Your task to perform on an android device: change alarm snooze length Image 0: 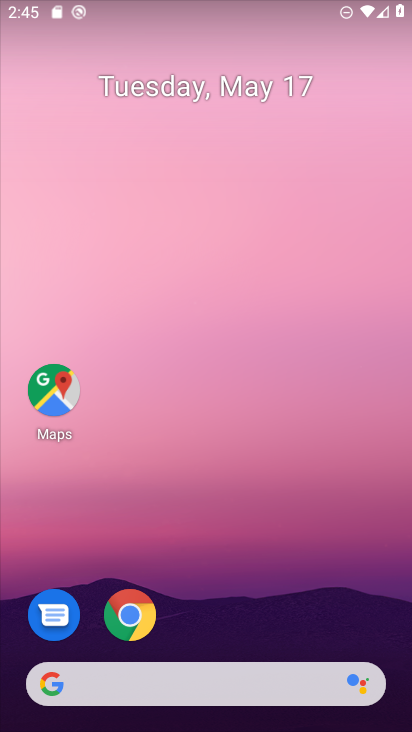
Step 0: drag from (212, 728) to (218, 219)
Your task to perform on an android device: change alarm snooze length Image 1: 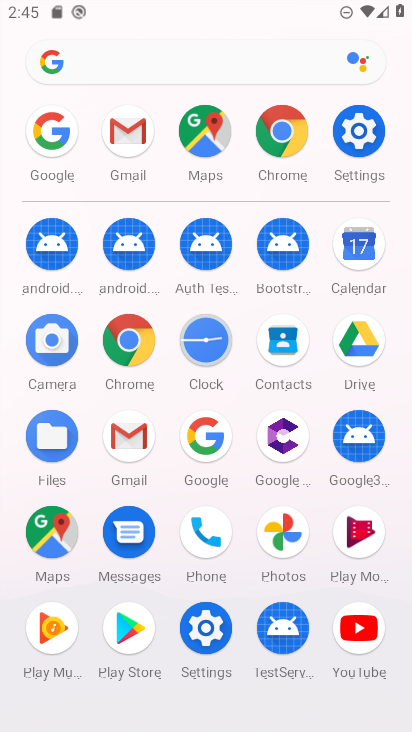
Step 1: click (204, 347)
Your task to perform on an android device: change alarm snooze length Image 2: 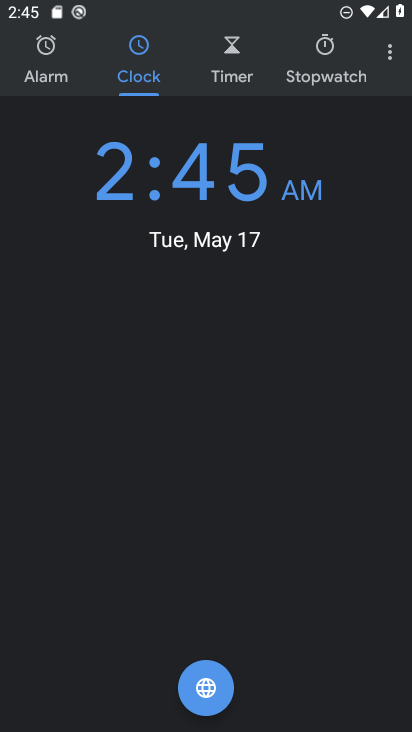
Step 2: click (393, 56)
Your task to perform on an android device: change alarm snooze length Image 3: 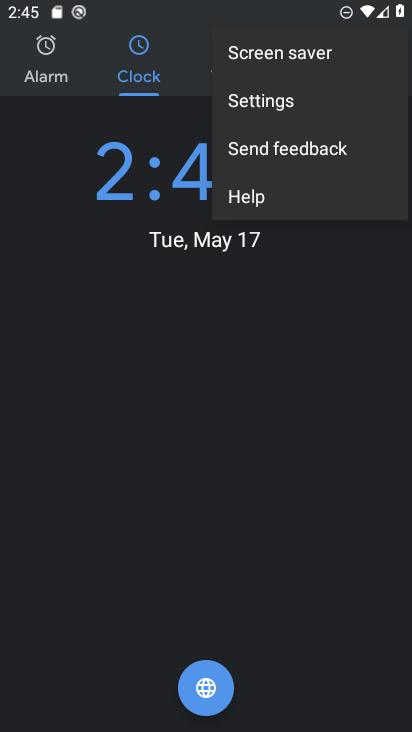
Step 3: click (283, 96)
Your task to perform on an android device: change alarm snooze length Image 4: 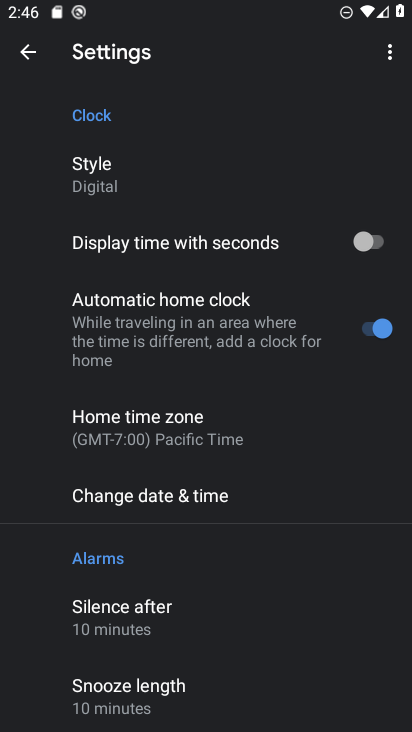
Step 4: click (131, 686)
Your task to perform on an android device: change alarm snooze length Image 5: 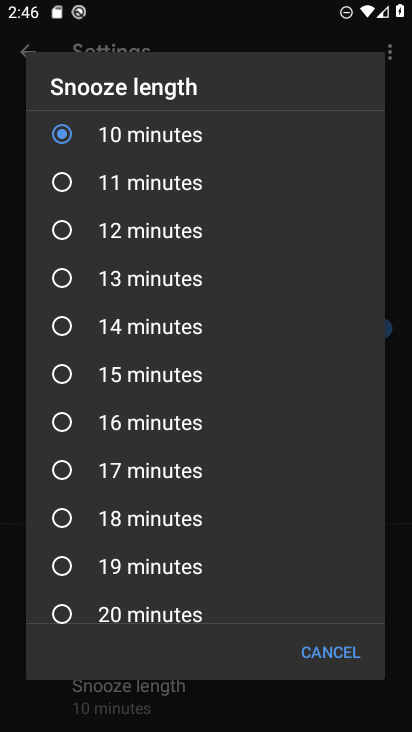
Step 5: click (61, 562)
Your task to perform on an android device: change alarm snooze length Image 6: 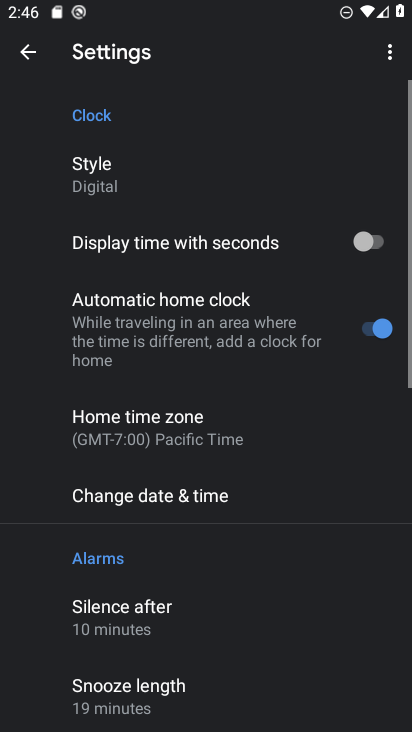
Step 6: task complete